Your task to perform on an android device: Add apple airpods to the cart on bestbuy.com, then select checkout. Image 0: 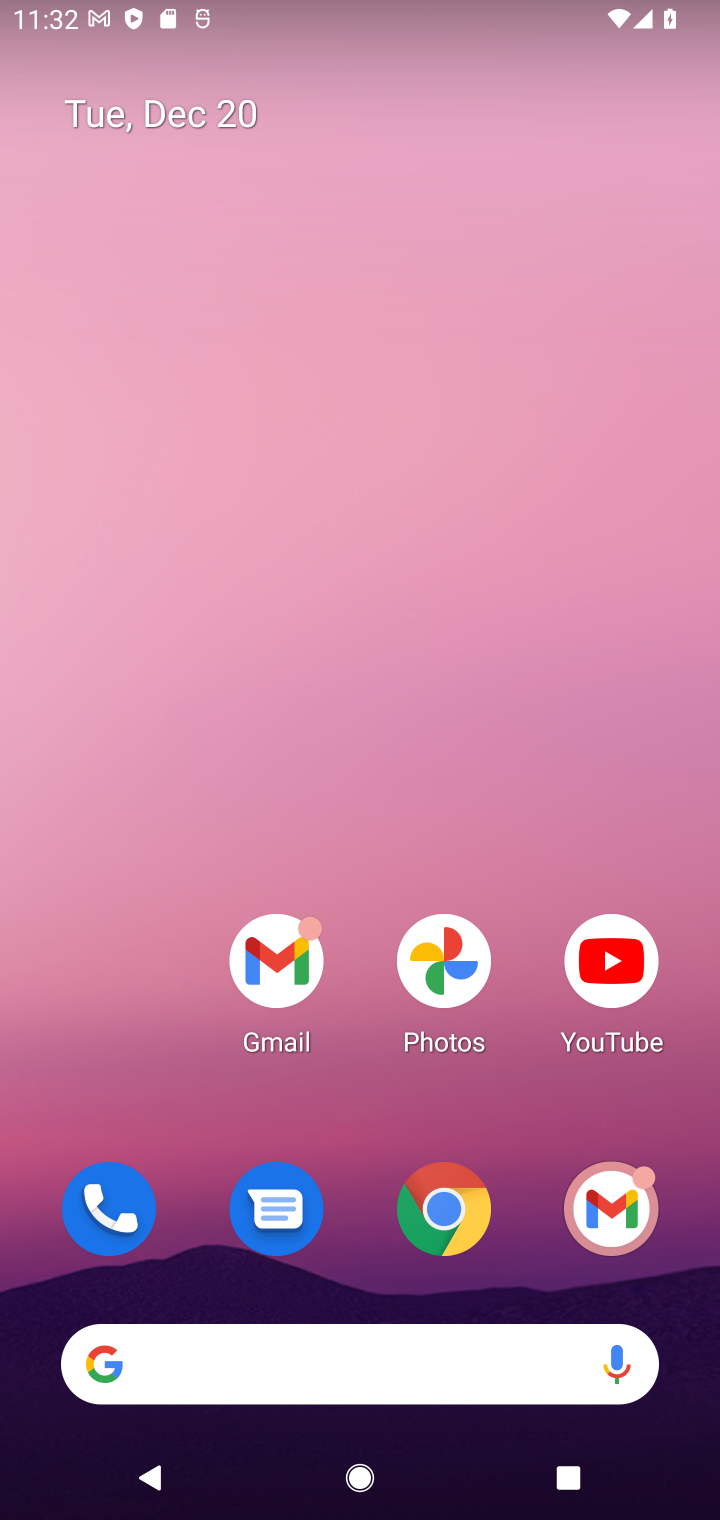
Step 0: click (450, 1209)
Your task to perform on an android device: Add apple airpods to the cart on bestbuy.com, then select checkout. Image 1: 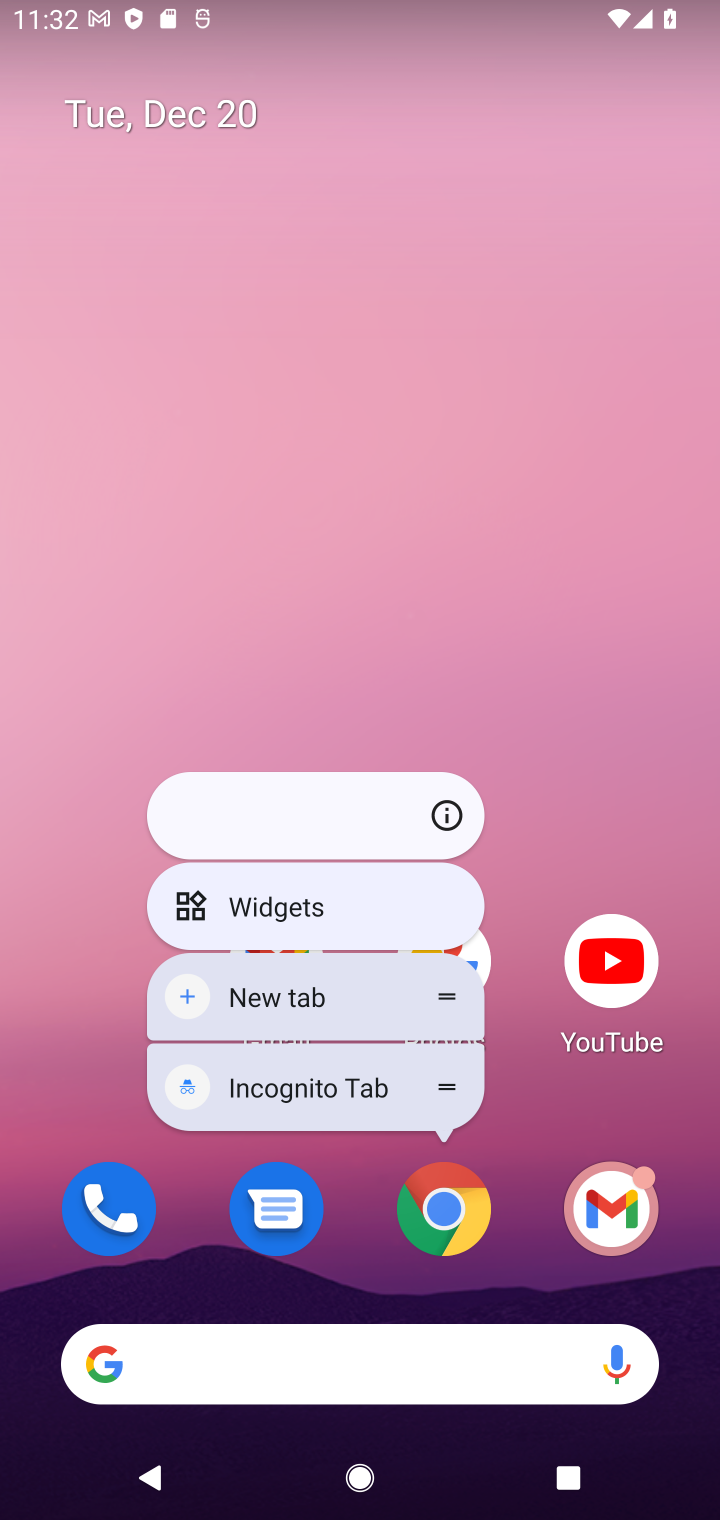
Step 1: click (450, 1209)
Your task to perform on an android device: Add apple airpods to the cart on bestbuy.com, then select checkout. Image 2: 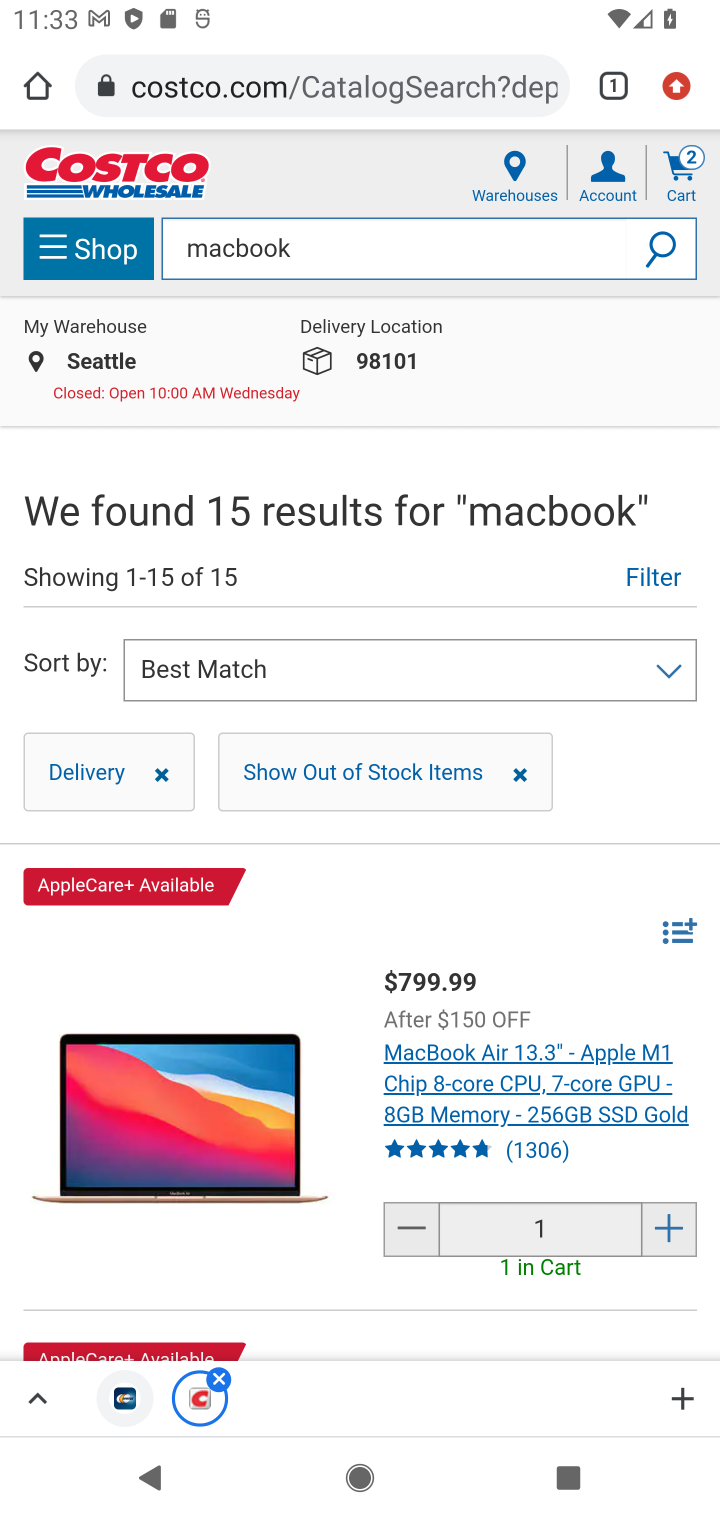
Step 2: click (250, 79)
Your task to perform on an android device: Add apple airpods to the cart on bestbuy.com, then select checkout. Image 3: 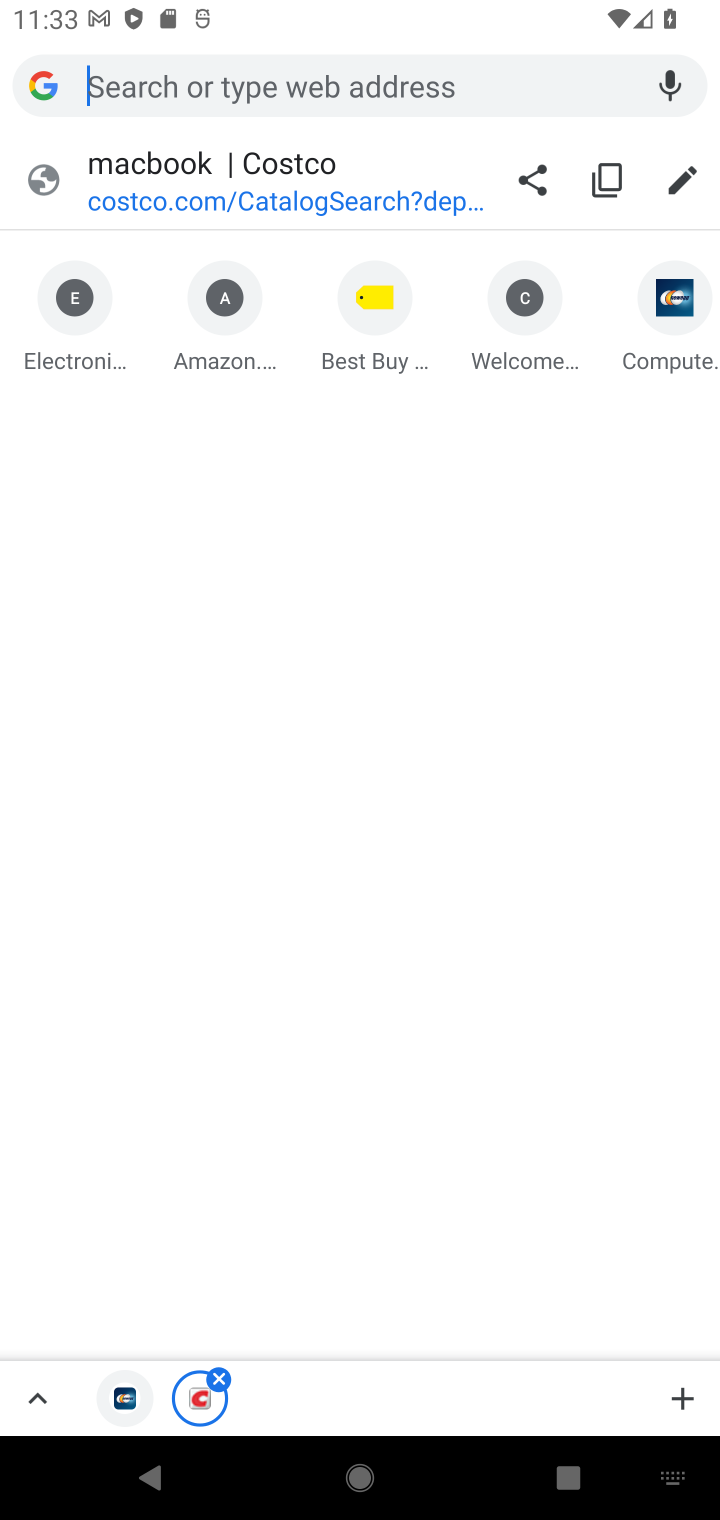
Step 3: click (375, 304)
Your task to perform on an android device: Add apple airpods to the cart on bestbuy.com, then select checkout. Image 4: 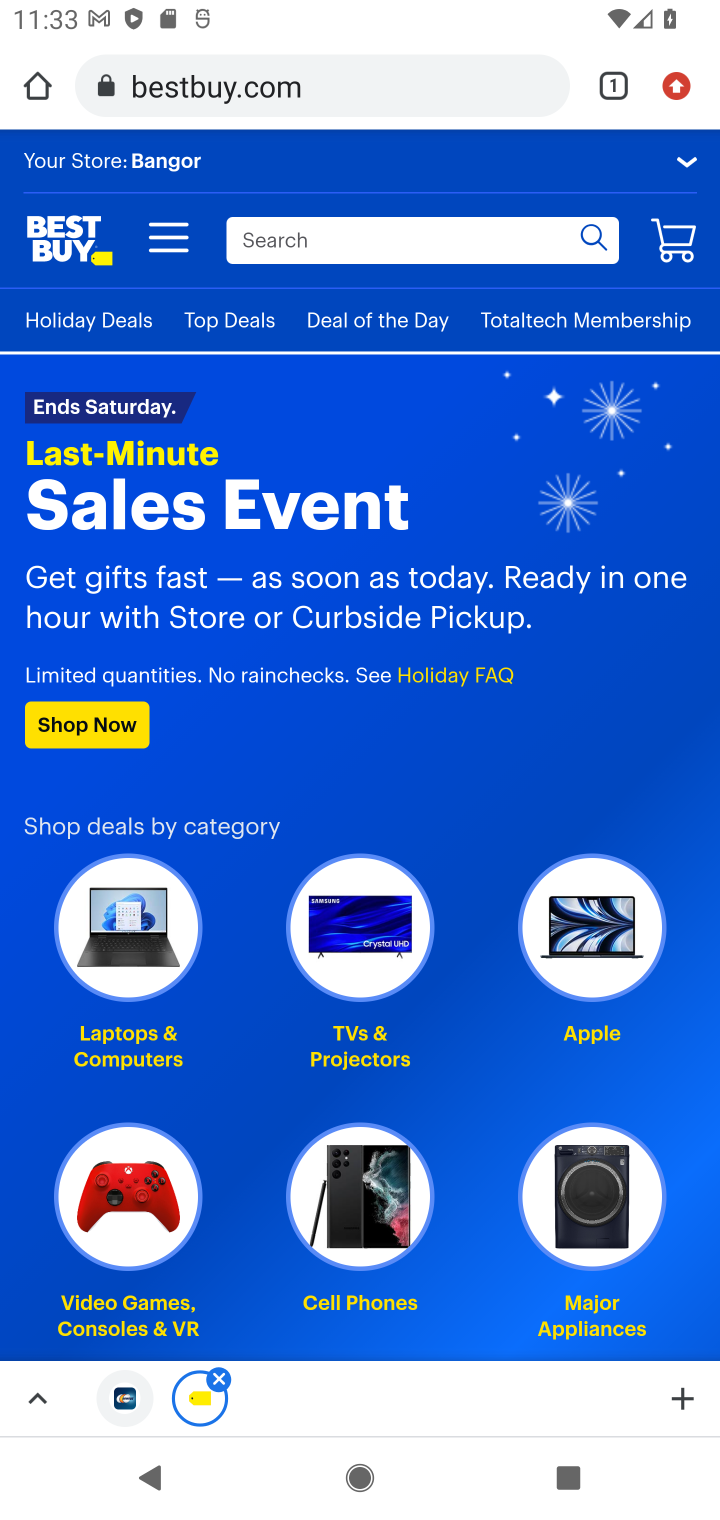
Step 4: click (270, 237)
Your task to perform on an android device: Add apple airpods to the cart on bestbuy.com, then select checkout. Image 5: 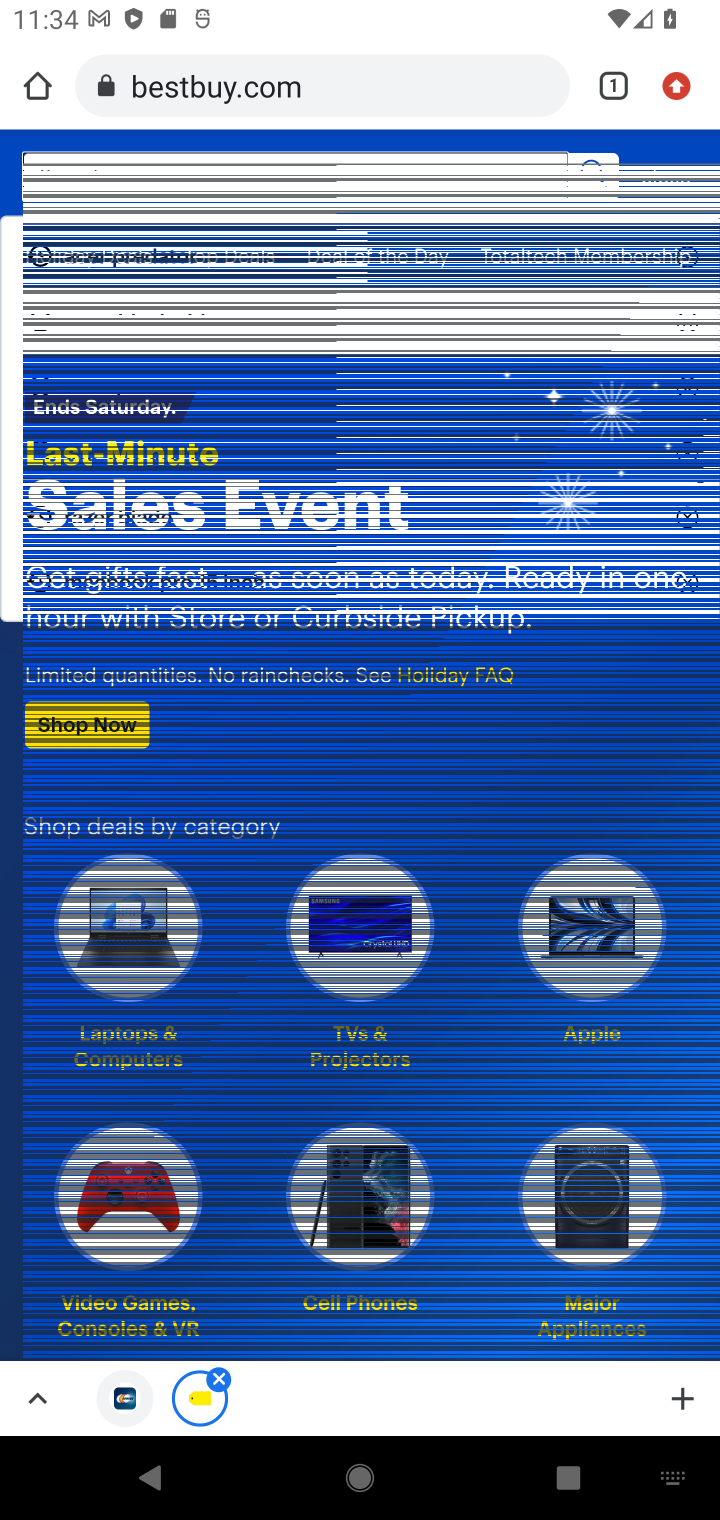
Step 5: type "apple airpods"
Your task to perform on an android device: Add apple airpods to the cart on bestbuy.com, then select checkout. Image 6: 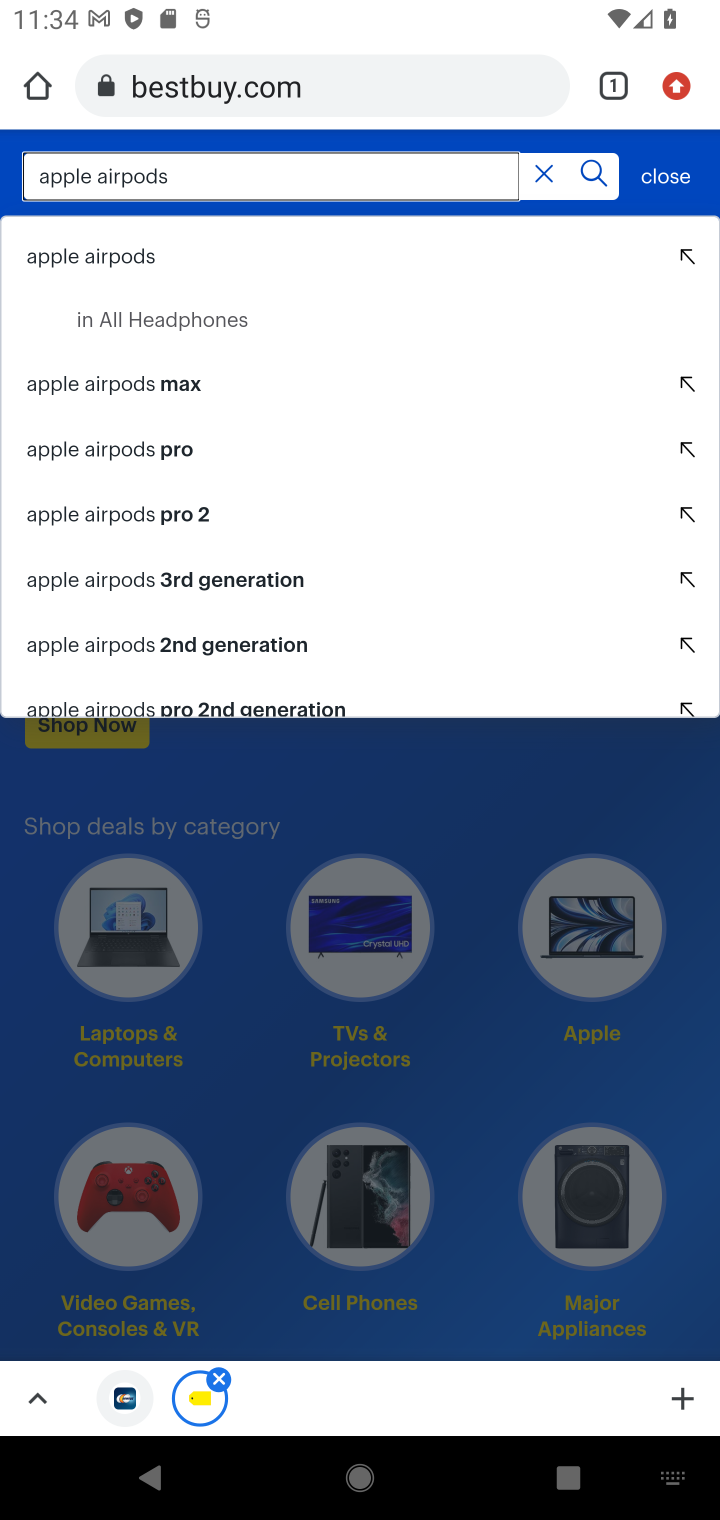
Step 6: click (100, 261)
Your task to perform on an android device: Add apple airpods to the cart on bestbuy.com, then select checkout. Image 7: 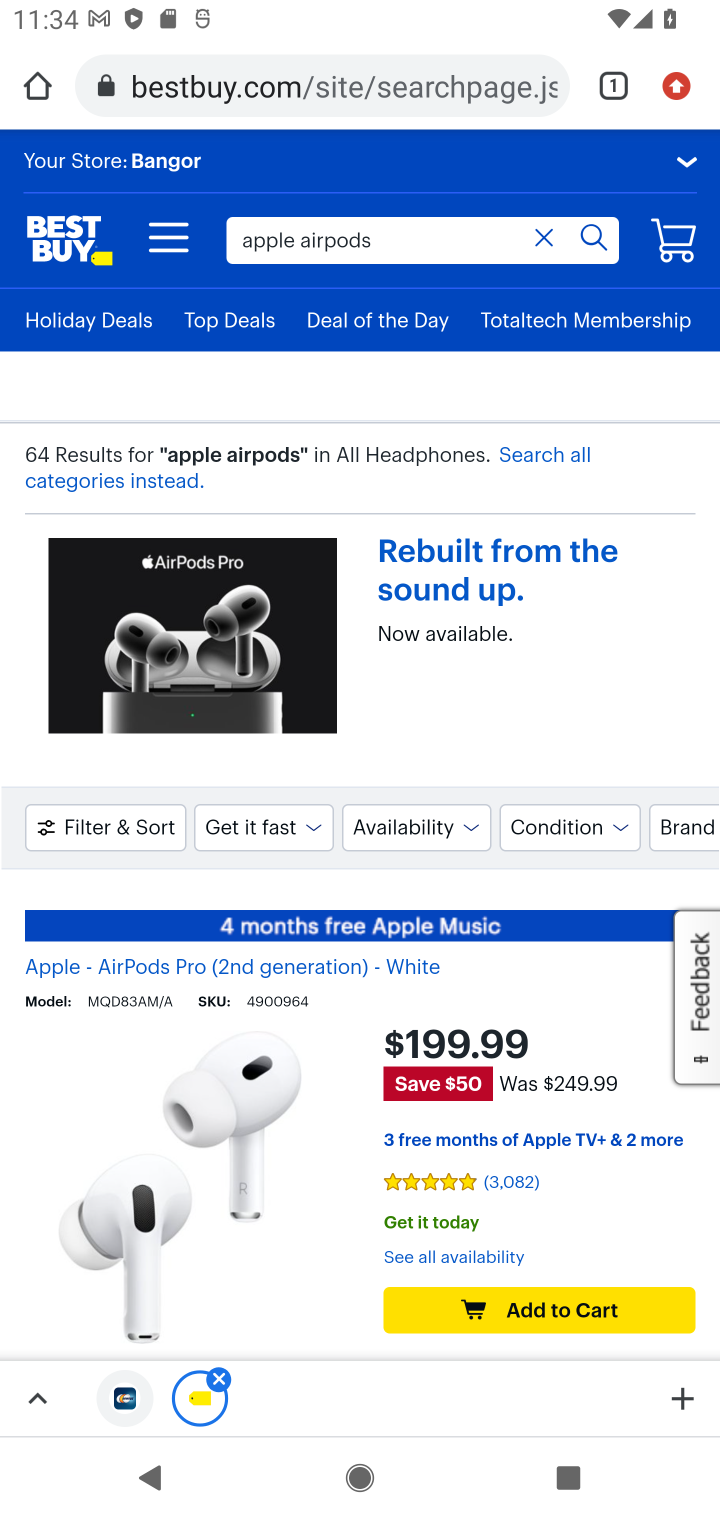
Step 7: click (531, 1317)
Your task to perform on an android device: Add apple airpods to the cart on bestbuy.com, then select checkout. Image 8: 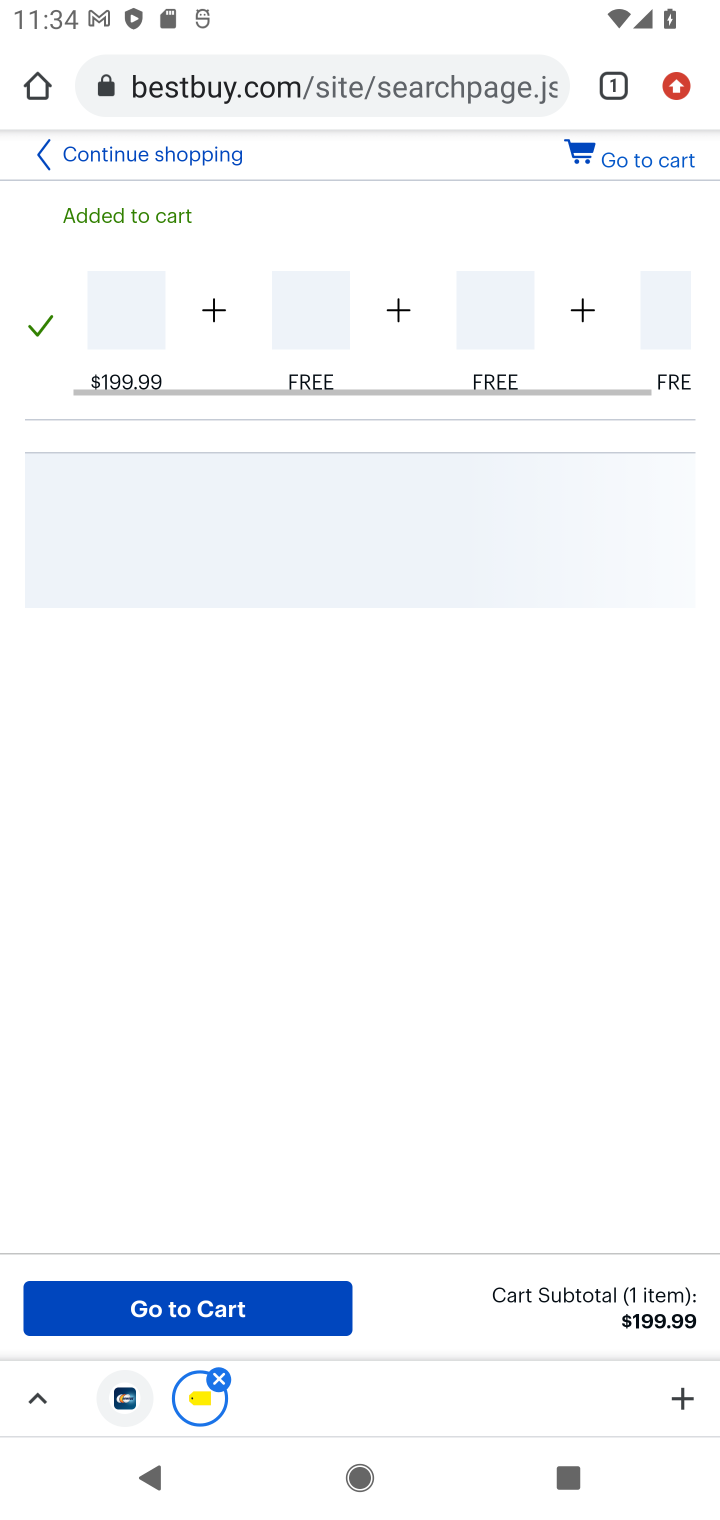
Step 8: click (651, 162)
Your task to perform on an android device: Add apple airpods to the cart on bestbuy.com, then select checkout. Image 9: 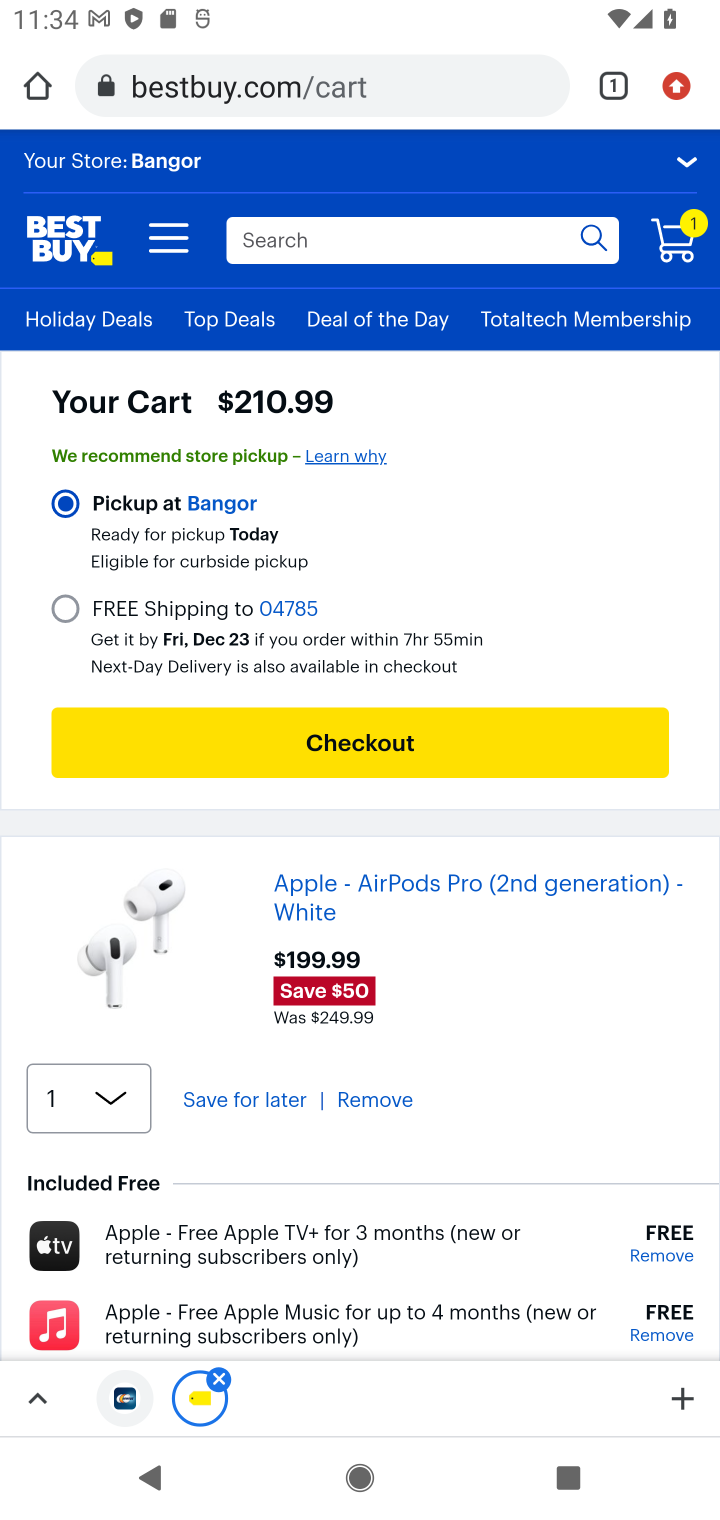
Step 9: click (365, 746)
Your task to perform on an android device: Add apple airpods to the cart on bestbuy.com, then select checkout. Image 10: 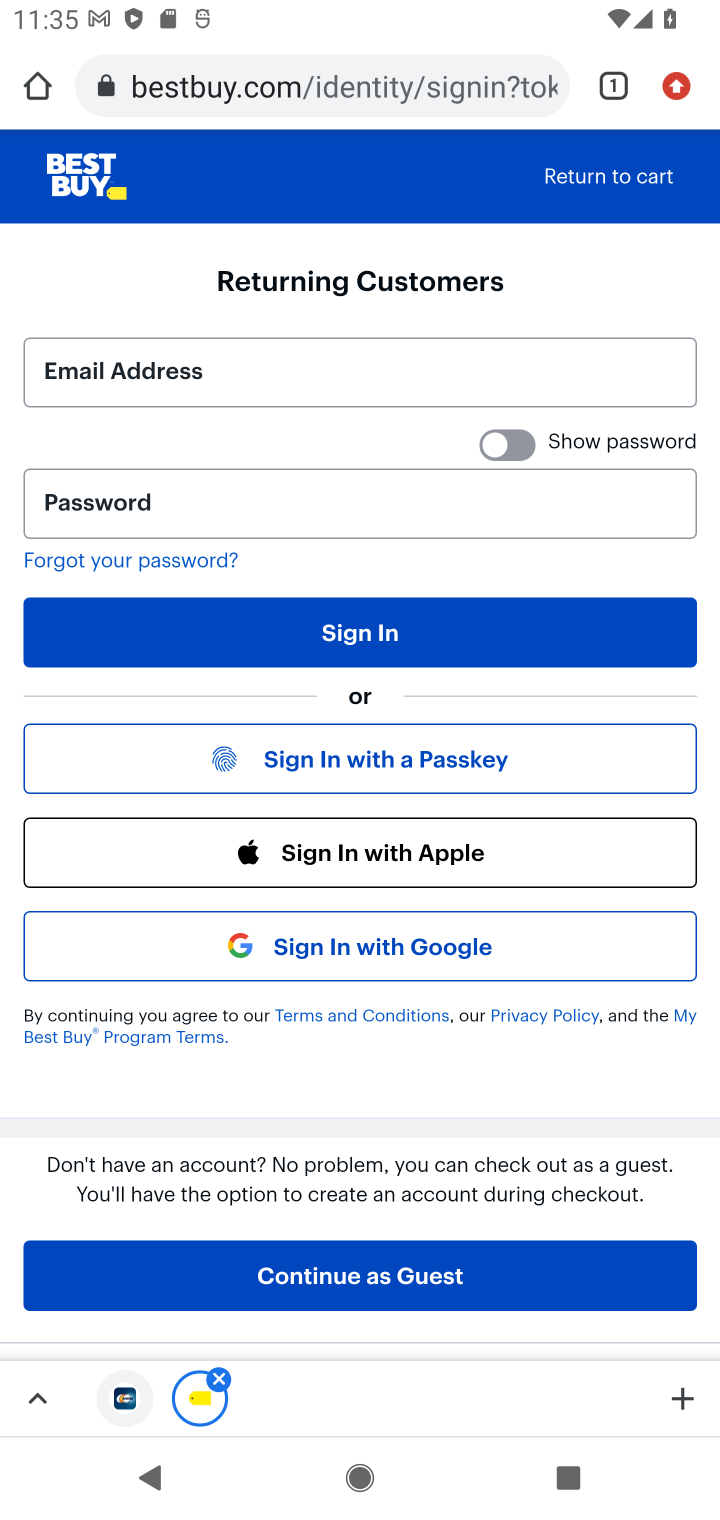
Step 10: task complete